Your task to perform on an android device: change text size in settings app Image 0: 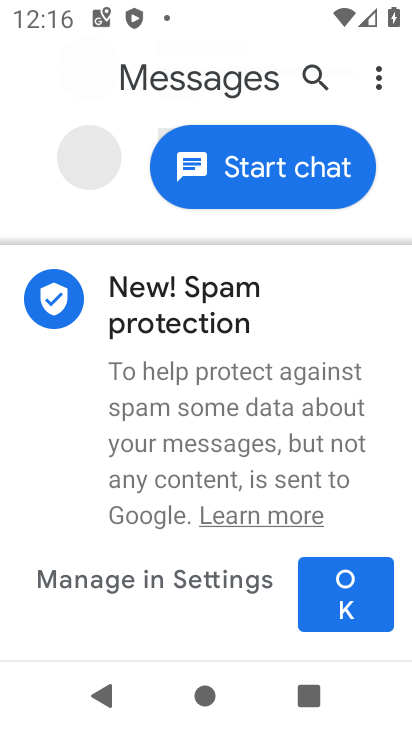
Step 0: press home button
Your task to perform on an android device: change text size in settings app Image 1: 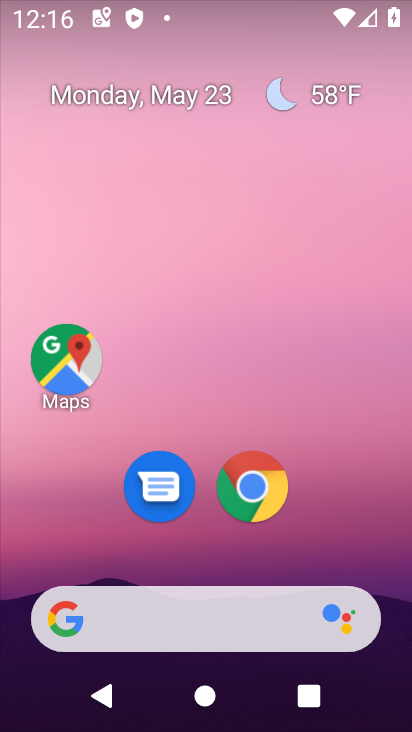
Step 1: drag from (397, 585) to (343, 25)
Your task to perform on an android device: change text size in settings app Image 2: 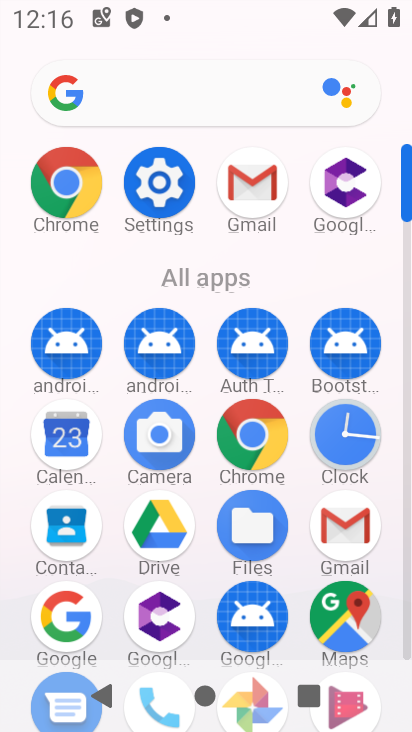
Step 2: click (408, 648)
Your task to perform on an android device: change text size in settings app Image 3: 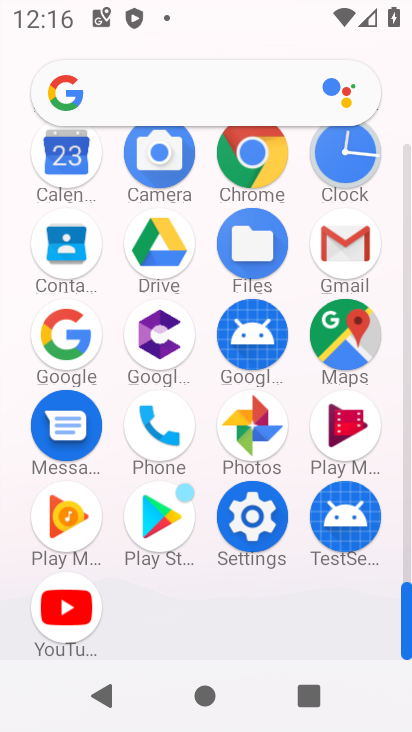
Step 3: click (251, 513)
Your task to perform on an android device: change text size in settings app Image 4: 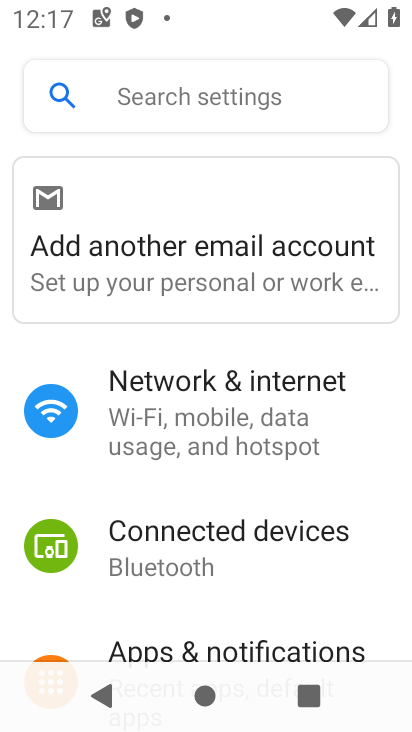
Step 4: drag from (357, 600) to (326, 111)
Your task to perform on an android device: change text size in settings app Image 5: 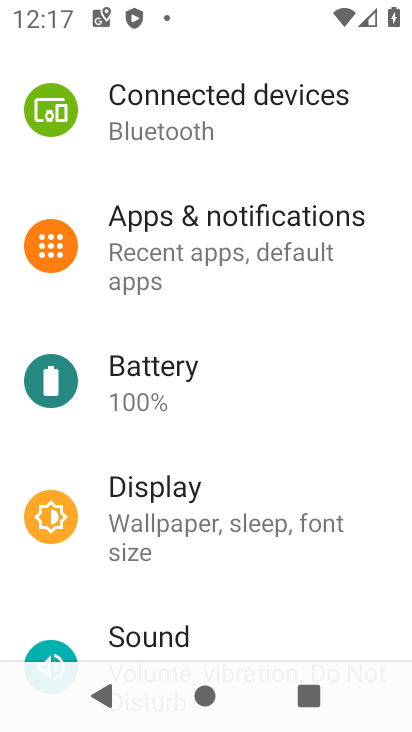
Step 5: click (161, 504)
Your task to perform on an android device: change text size in settings app Image 6: 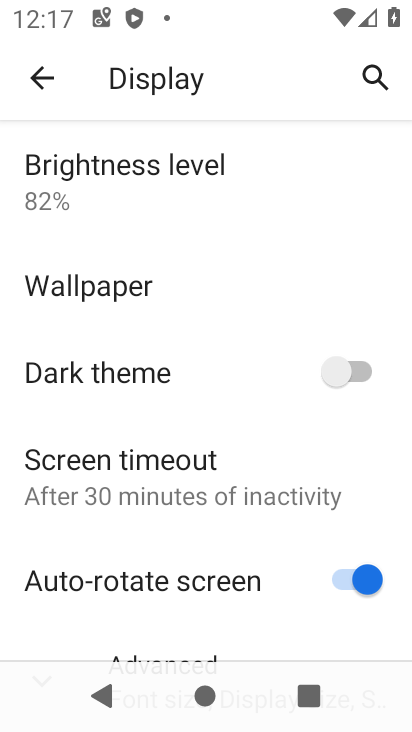
Step 6: drag from (327, 525) to (303, 207)
Your task to perform on an android device: change text size in settings app Image 7: 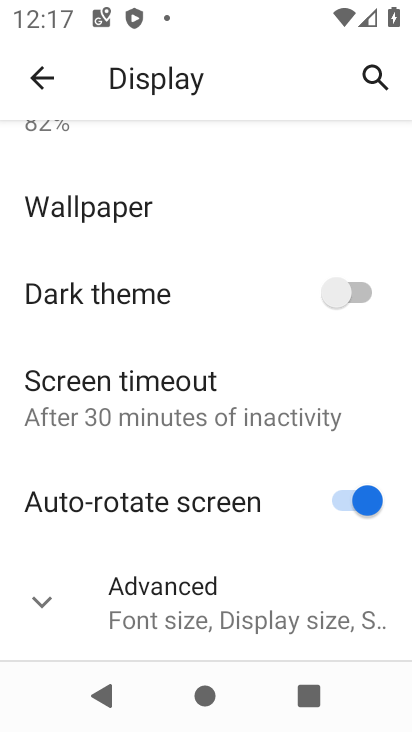
Step 7: click (36, 608)
Your task to perform on an android device: change text size in settings app Image 8: 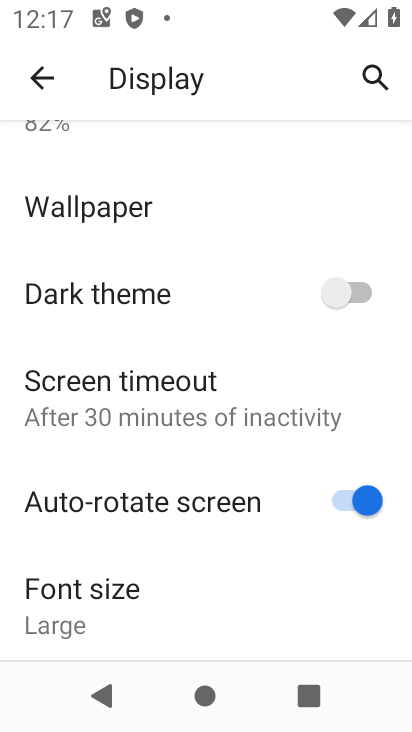
Step 8: drag from (264, 638) to (271, 187)
Your task to perform on an android device: change text size in settings app Image 9: 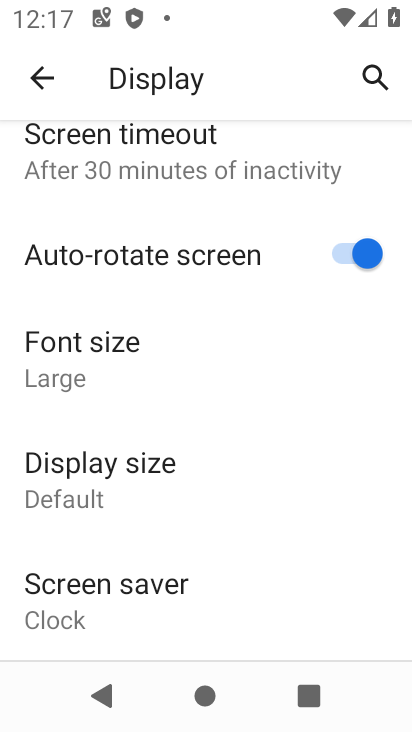
Step 9: click (48, 355)
Your task to perform on an android device: change text size in settings app Image 10: 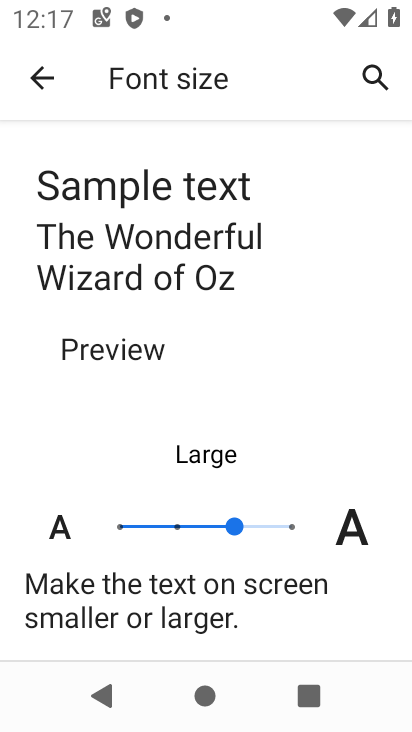
Step 10: click (180, 527)
Your task to perform on an android device: change text size in settings app Image 11: 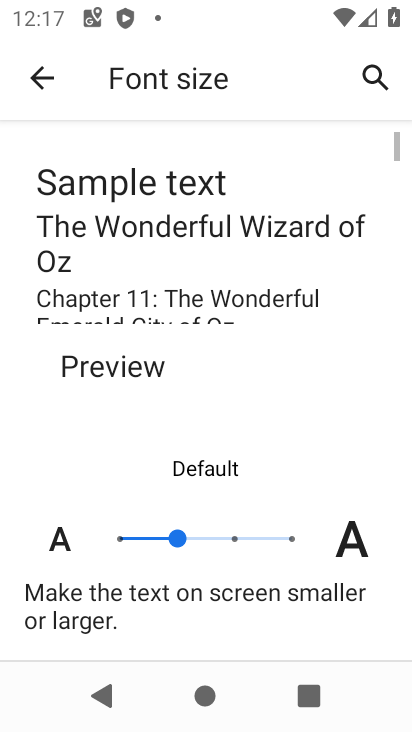
Step 11: task complete